Your task to perform on an android device: Toggle the flashlight Image 0: 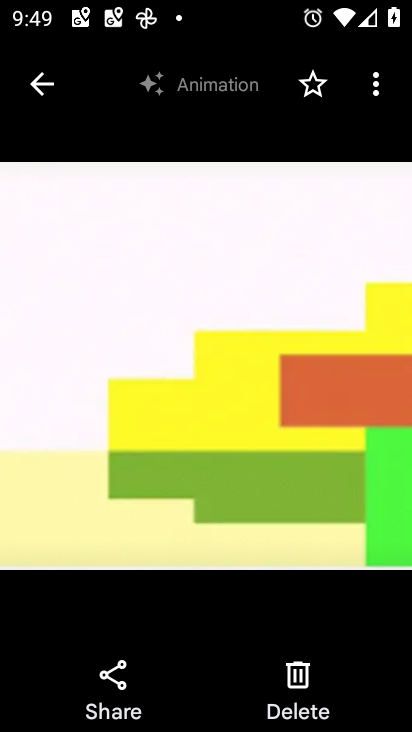
Step 0: press home button
Your task to perform on an android device: Toggle the flashlight Image 1: 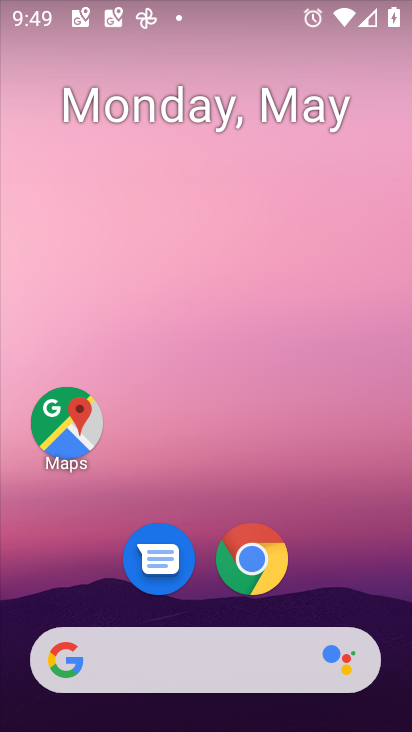
Step 1: drag from (395, 655) to (308, 115)
Your task to perform on an android device: Toggle the flashlight Image 2: 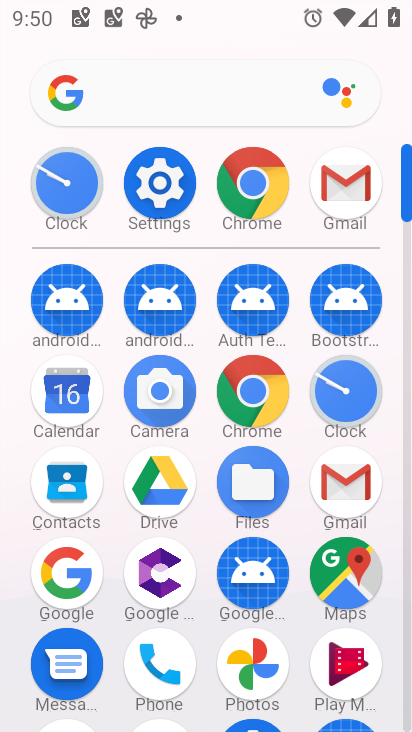
Step 2: click (155, 201)
Your task to perform on an android device: Toggle the flashlight Image 3: 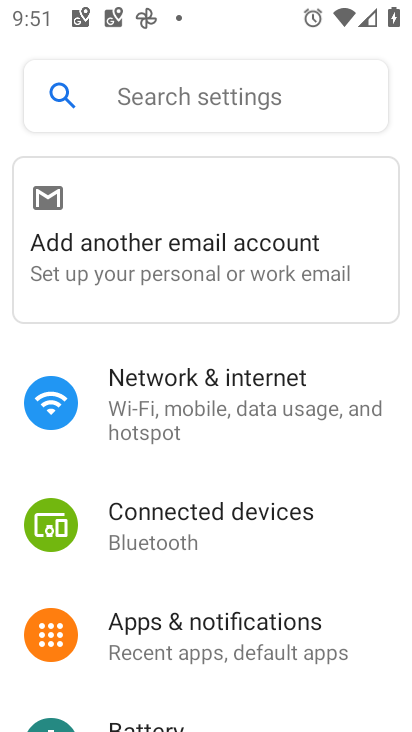
Step 3: task complete